Your task to perform on an android device: change the clock display to show seconds Image 0: 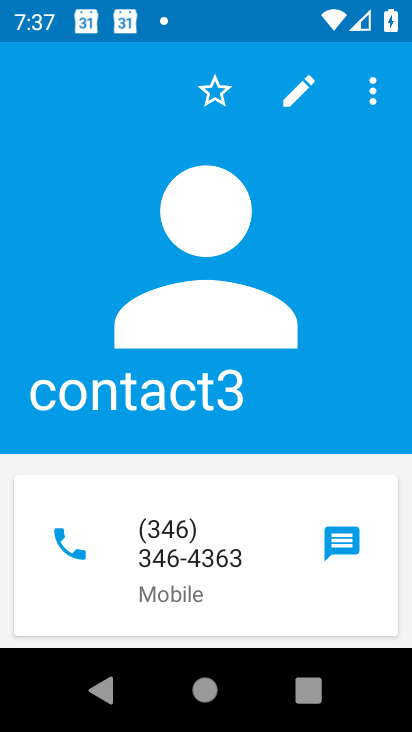
Step 0: press home button
Your task to perform on an android device: change the clock display to show seconds Image 1: 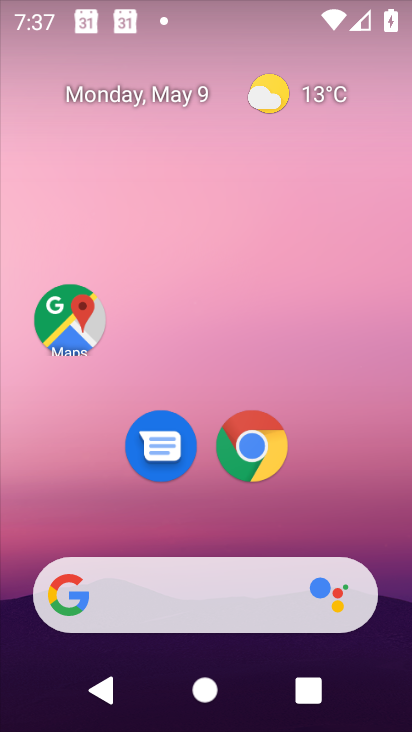
Step 1: drag from (281, 510) to (331, 63)
Your task to perform on an android device: change the clock display to show seconds Image 2: 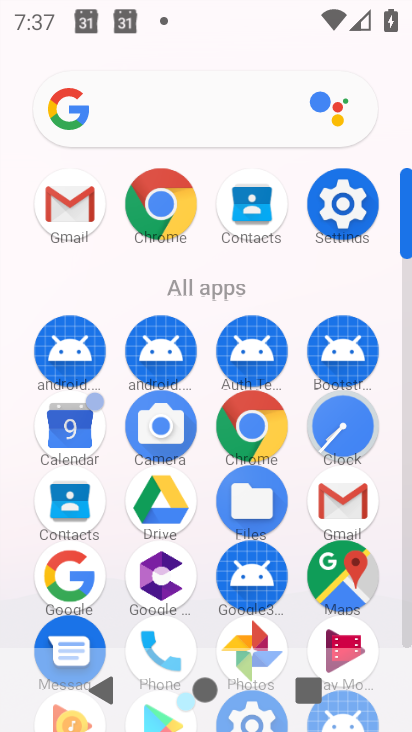
Step 2: click (340, 443)
Your task to perform on an android device: change the clock display to show seconds Image 3: 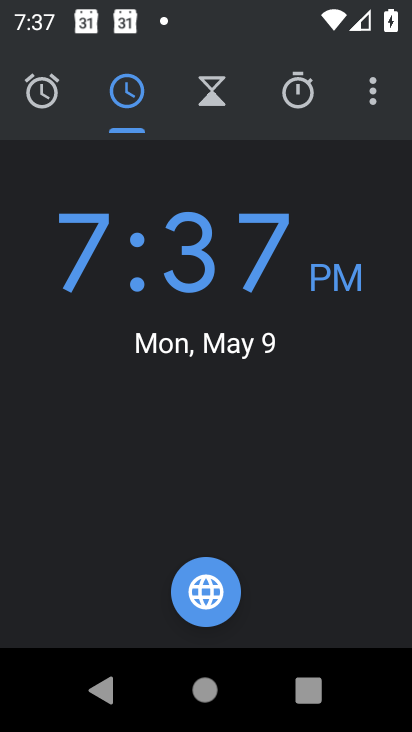
Step 3: click (370, 103)
Your task to perform on an android device: change the clock display to show seconds Image 4: 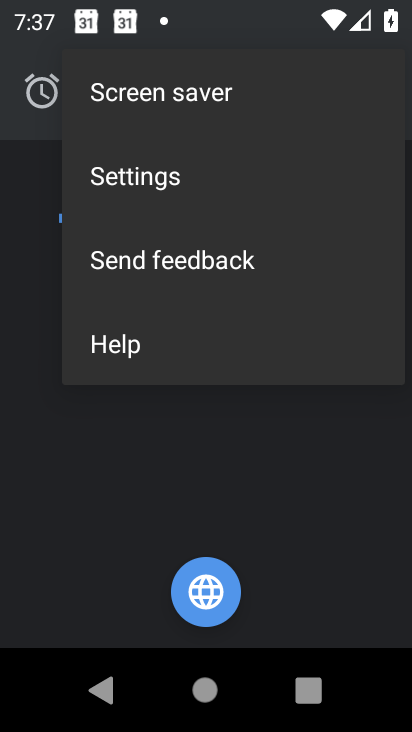
Step 4: click (223, 174)
Your task to perform on an android device: change the clock display to show seconds Image 5: 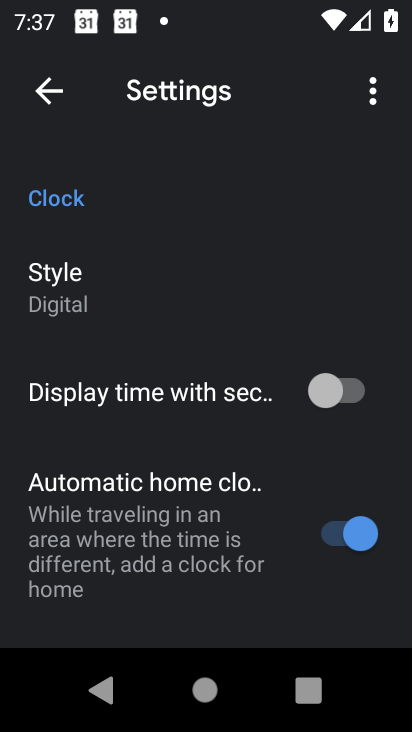
Step 5: click (328, 404)
Your task to perform on an android device: change the clock display to show seconds Image 6: 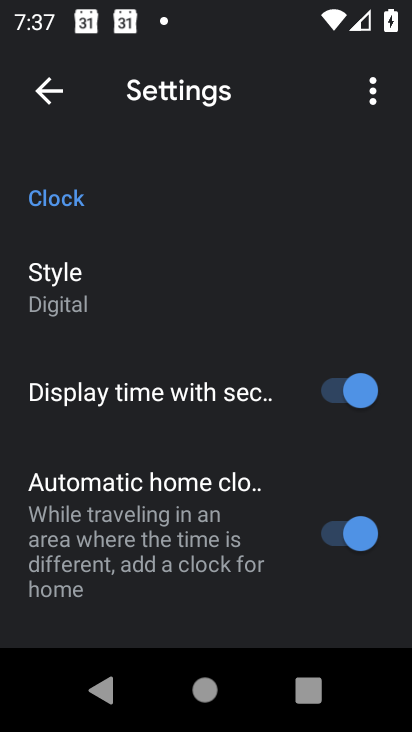
Step 6: task complete